Your task to perform on an android device: snooze an email in the gmail app Image 0: 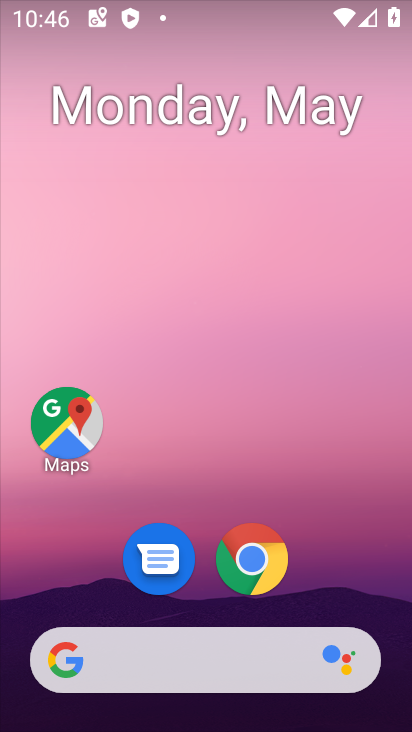
Step 0: drag from (339, 551) to (314, 122)
Your task to perform on an android device: snooze an email in the gmail app Image 1: 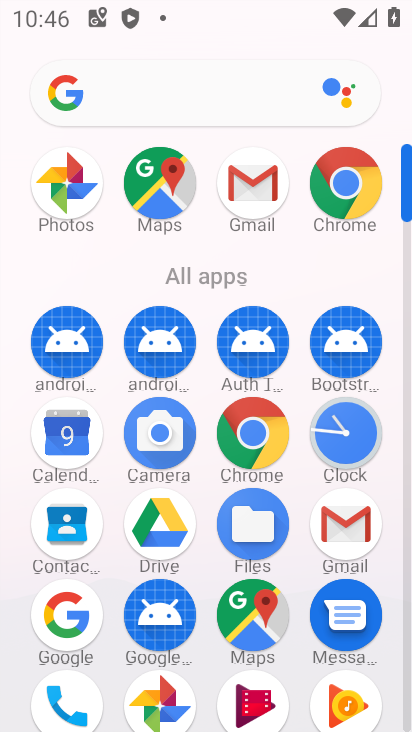
Step 1: click (254, 197)
Your task to perform on an android device: snooze an email in the gmail app Image 2: 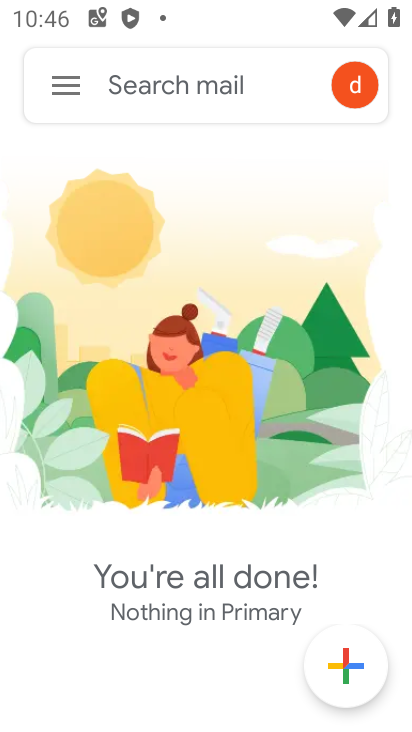
Step 2: click (82, 135)
Your task to perform on an android device: snooze an email in the gmail app Image 3: 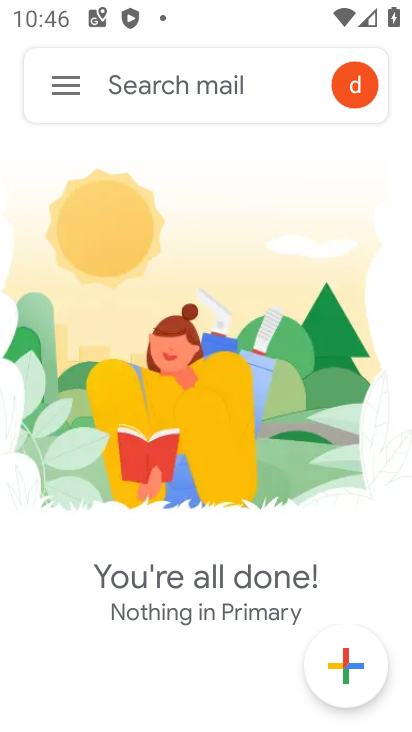
Step 3: click (74, 80)
Your task to perform on an android device: snooze an email in the gmail app Image 4: 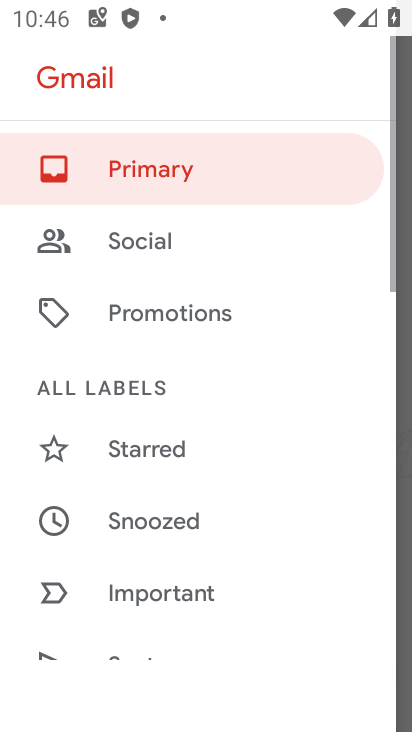
Step 4: task complete